Your task to perform on an android device: turn notification dots on Image 0: 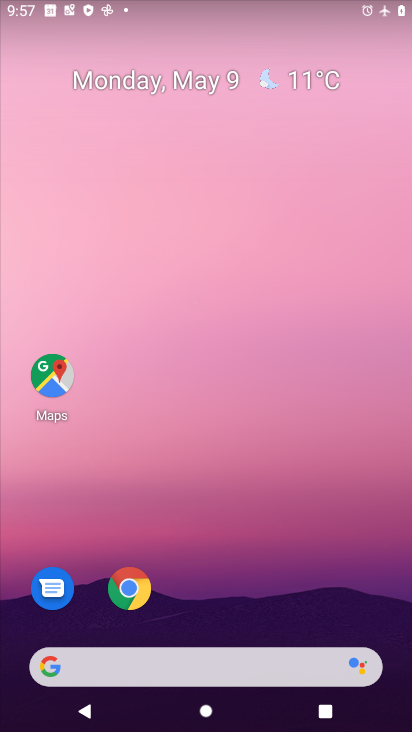
Step 0: drag from (345, 595) to (316, 67)
Your task to perform on an android device: turn notification dots on Image 1: 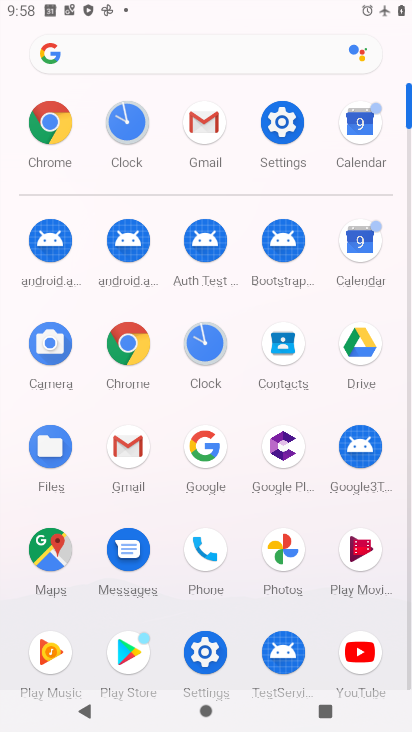
Step 1: click (211, 651)
Your task to perform on an android device: turn notification dots on Image 2: 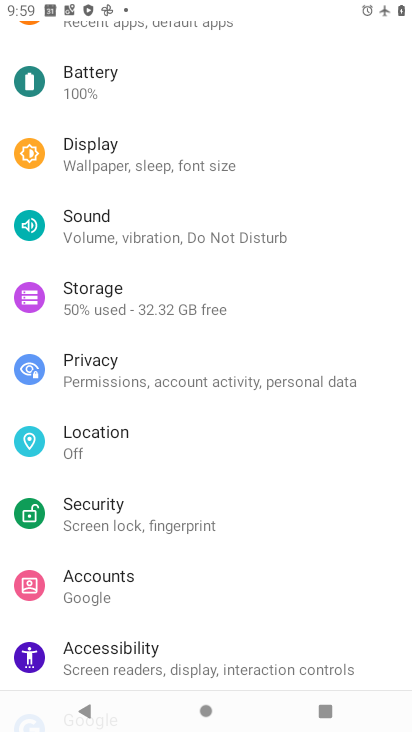
Step 2: drag from (157, 125) to (196, 654)
Your task to perform on an android device: turn notification dots on Image 3: 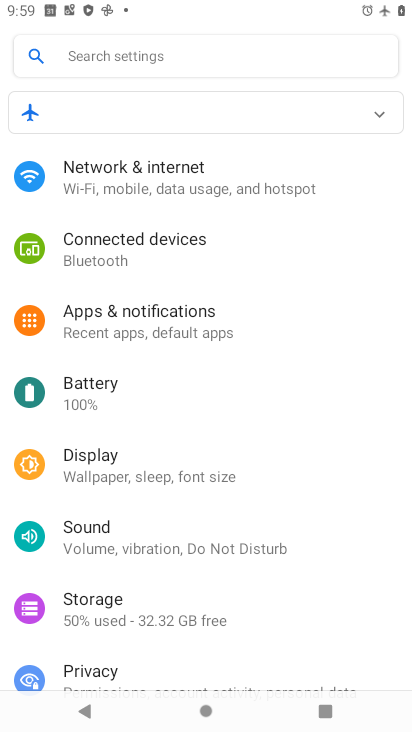
Step 3: click (258, 328)
Your task to perform on an android device: turn notification dots on Image 4: 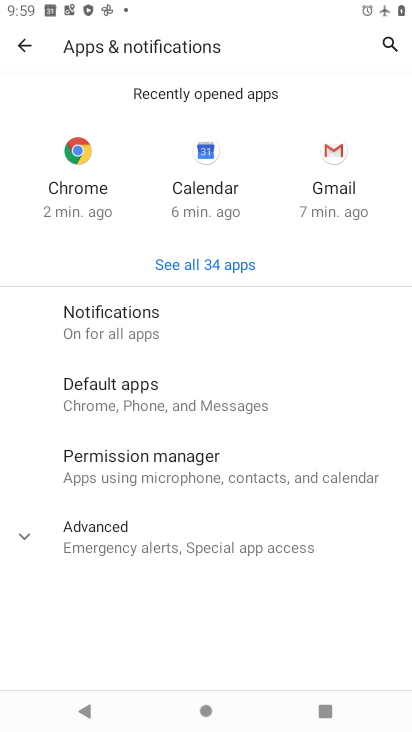
Step 4: click (258, 328)
Your task to perform on an android device: turn notification dots on Image 5: 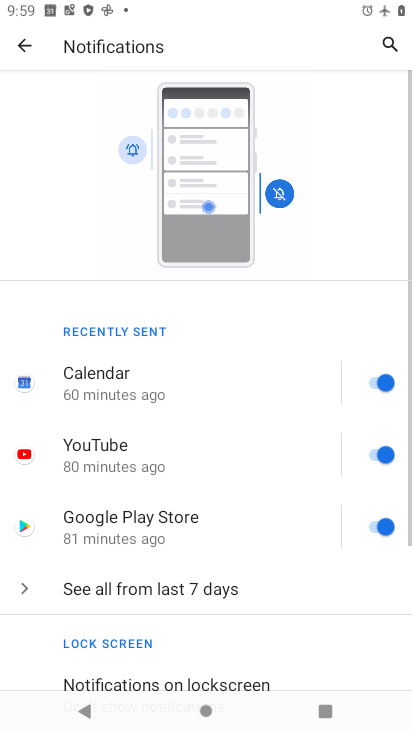
Step 5: drag from (164, 667) to (216, 97)
Your task to perform on an android device: turn notification dots on Image 6: 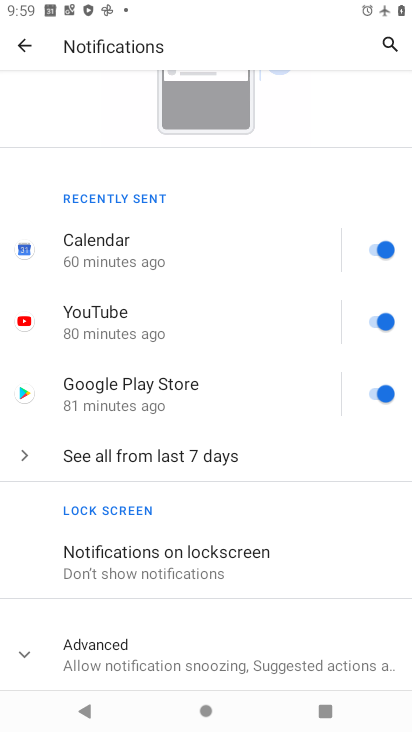
Step 6: click (129, 674)
Your task to perform on an android device: turn notification dots on Image 7: 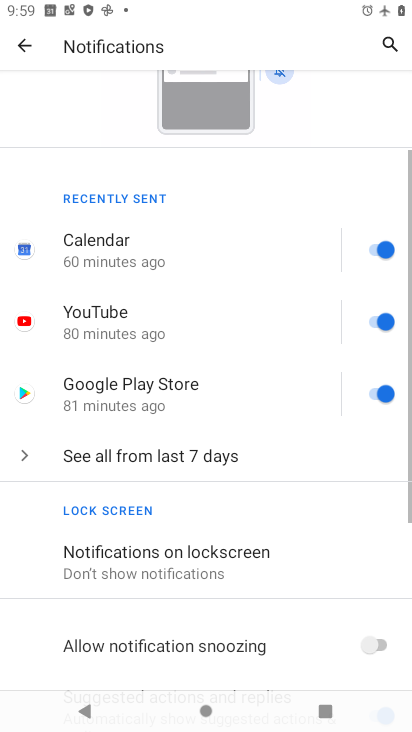
Step 7: task complete